Your task to perform on an android device: Open ESPN.com Image 0: 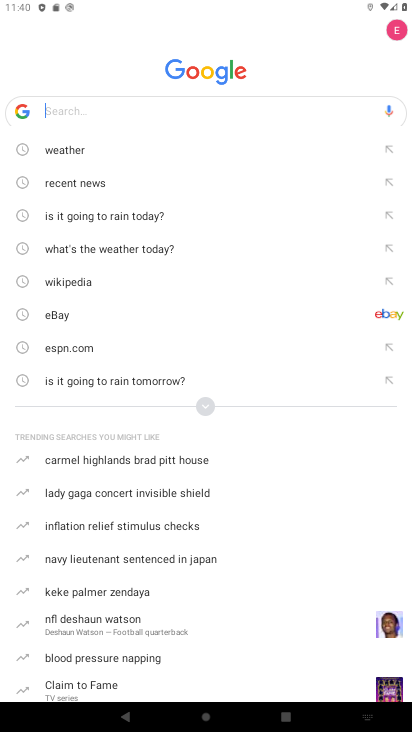
Step 0: press home button
Your task to perform on an android device: Open ESPN.com Image 1: 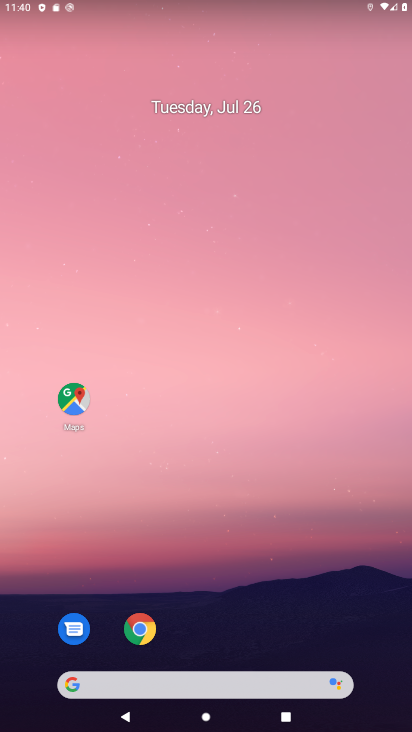
Step 1: click (136, 624)
Your task to perform on an android device: Open ESPN.com Image 2: 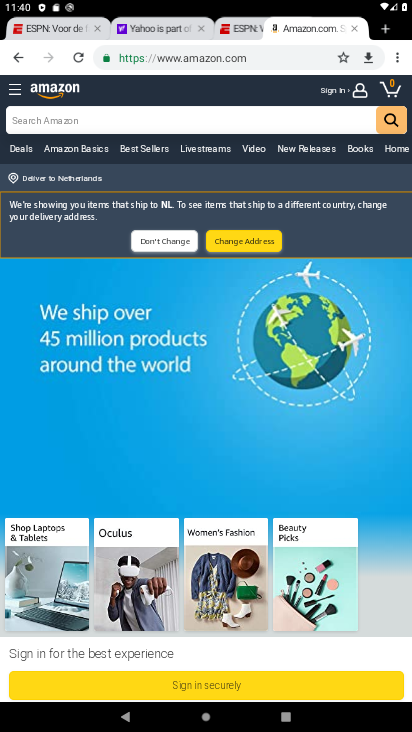
Step 2: click (397, 60)
Your task to perform on an android device: Open ESPN.com Image 3: 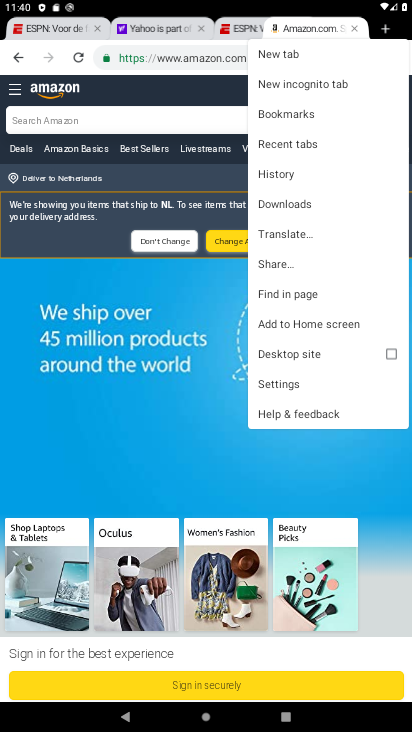
Step 3: click (292, 59)
Your task to perform on an android device: Open ESPN.com Image 4: 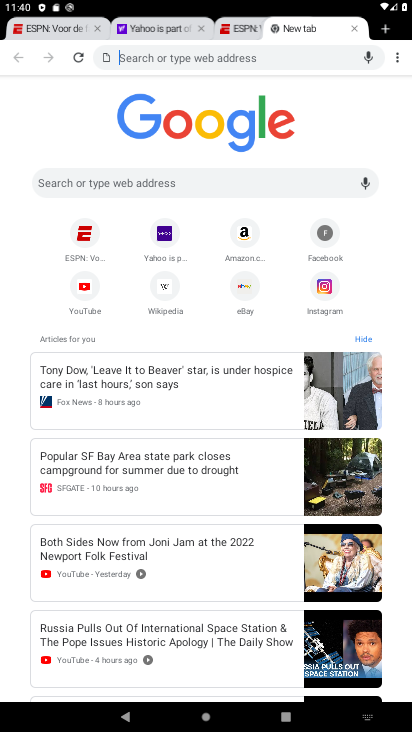
Step 4: click (80, 234)
Your task to perform on an android device: Open ESPN.com Image 5: 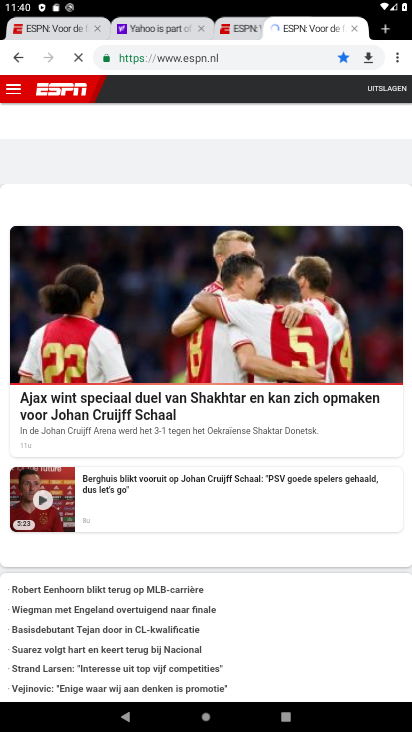
Step 5: task complete